Your task to perform on an android device: turn off smart reply in the gmail app Image 0: 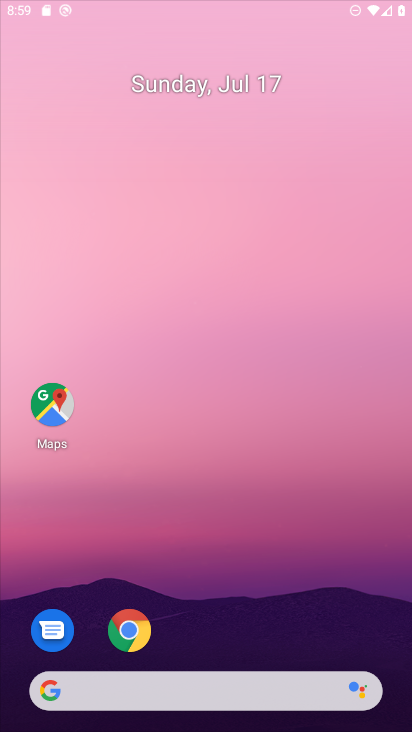
Step 0: drag from (370, 653) to (230, 54)
Your task to perform on an android device: turn off smart reply in the gmail app Image 1: 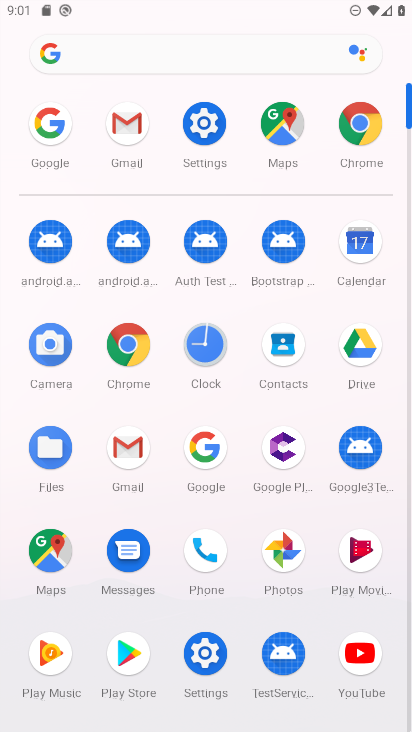
Step 1: click (131, 455)
Your task to perform on an android device: turn off smart reply in the gmail app Image 2: 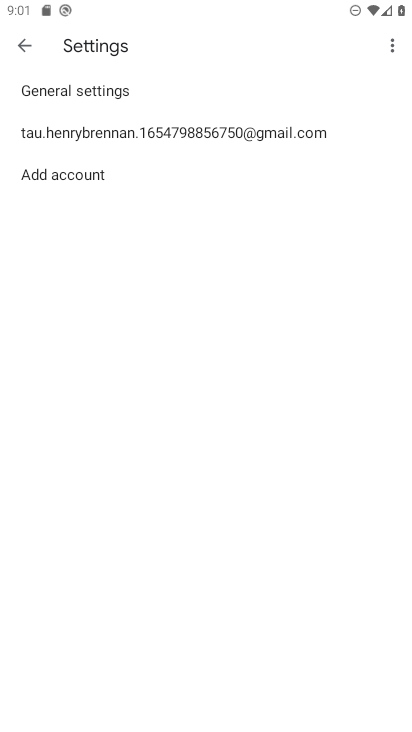
Step 2: press back button
Your task to perform on an android device: turn off smart reply in the gmail app Image 3: 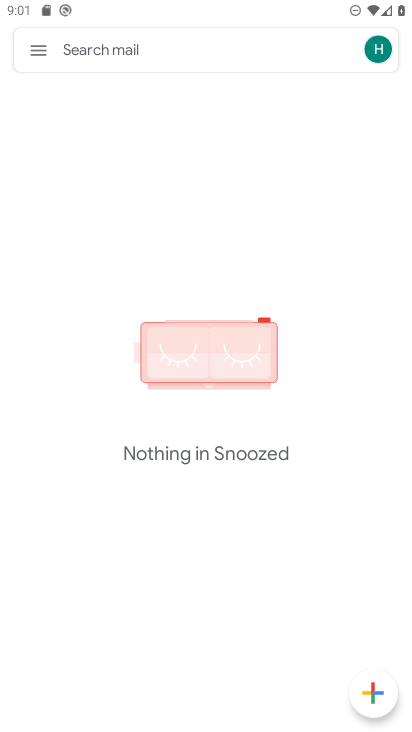
Step 3: click (42, 56)
Your task to perform on an android device: turn off smart reply in the gmail app Image 4: 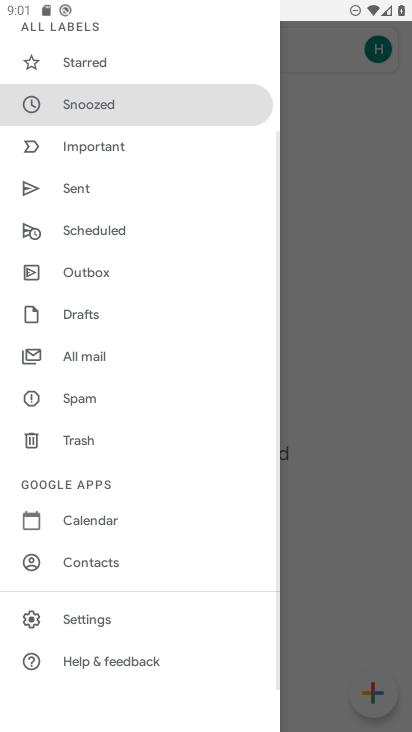
Step 4: click (116, 617)
Your task to perform on an android device: turn off smart reply in the gmail app Image 5: 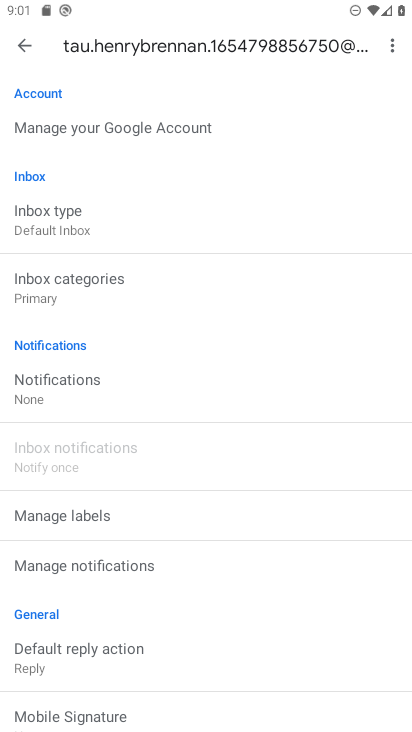
Step 5: drag from (139, 675) to (189, 25)
Your task to perform on an android device: turn off smart reply in the gmail app Image 6: 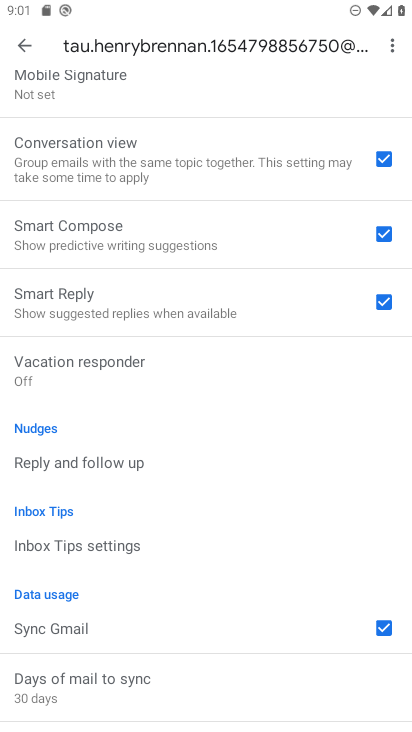
Step 6: click (263, 278)
Your task to perform on an android device: turn off smart reply in the gmail app Image 7: 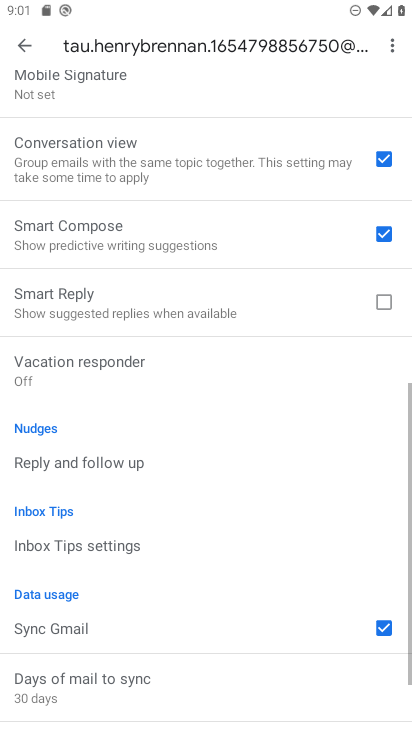
Step 7: task complete